Your task to perform on an android device: Go to Android settings Image 0: 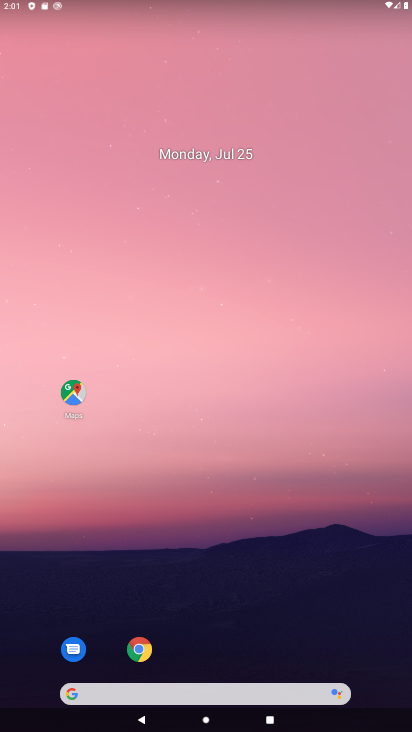
Step 0: drag from (380, 670) to (347, 92)
Your task to perform on an android device: Go to Android settings Image 1: 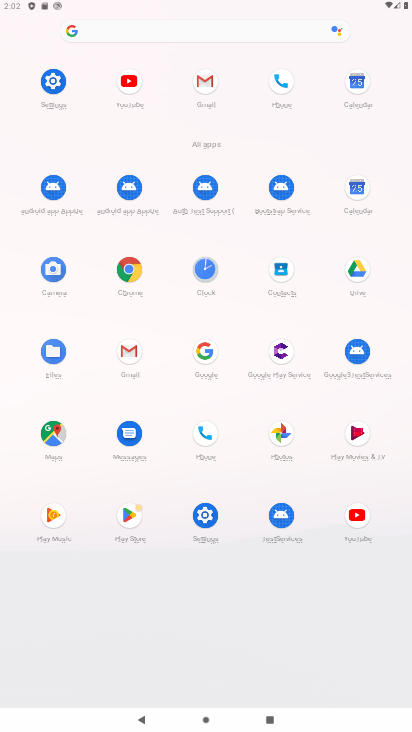
Step 1: click (204, 515)
Your task to perform on an android device: Go to Android settings Image 2: 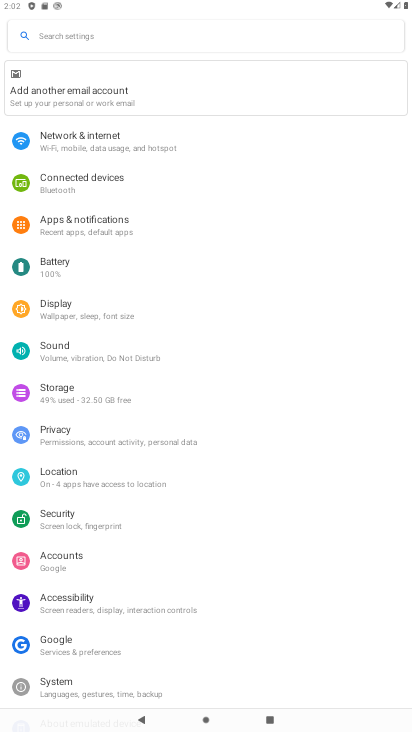
Step 2: drag from (182, 665) to (225, 187)
Your task to perform on an android device: Go to Android settings Image 3: 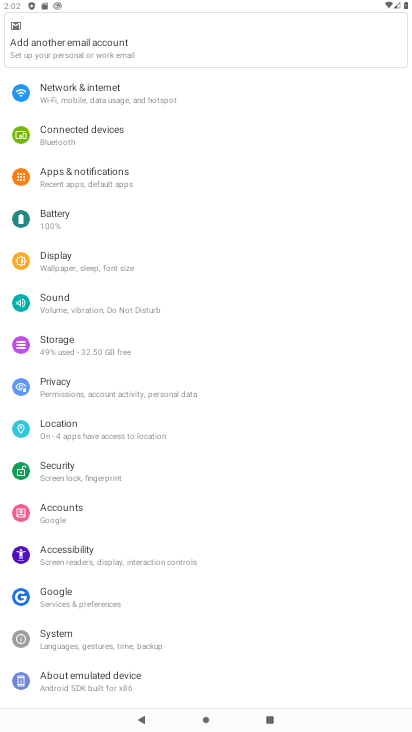
Step 3: click (71, 678)
Your task to perform on an android device: Go to Android settings Image 4: 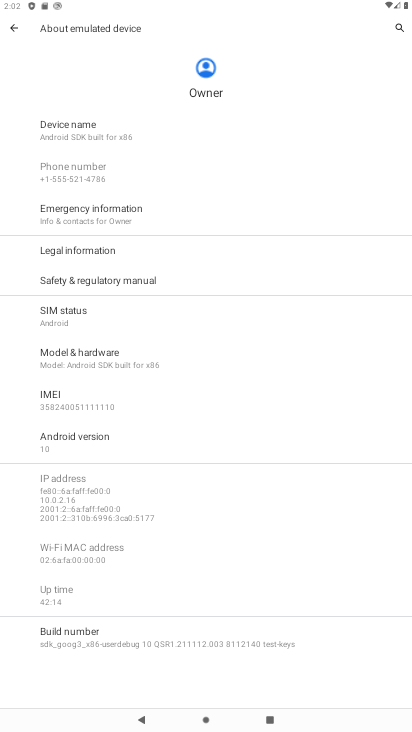
Step 4: task complete